Your task to perform on an android device: check out phone information Image 0: 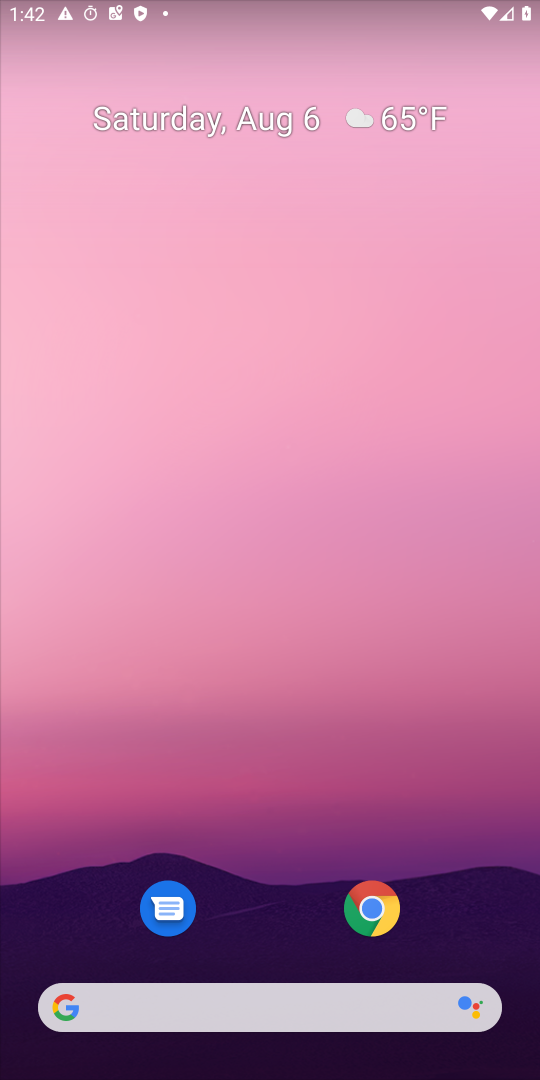
Step 0: drag from (295, 876) to (242, 130)
Your task to perform on an android device: check out phone information Image 1: 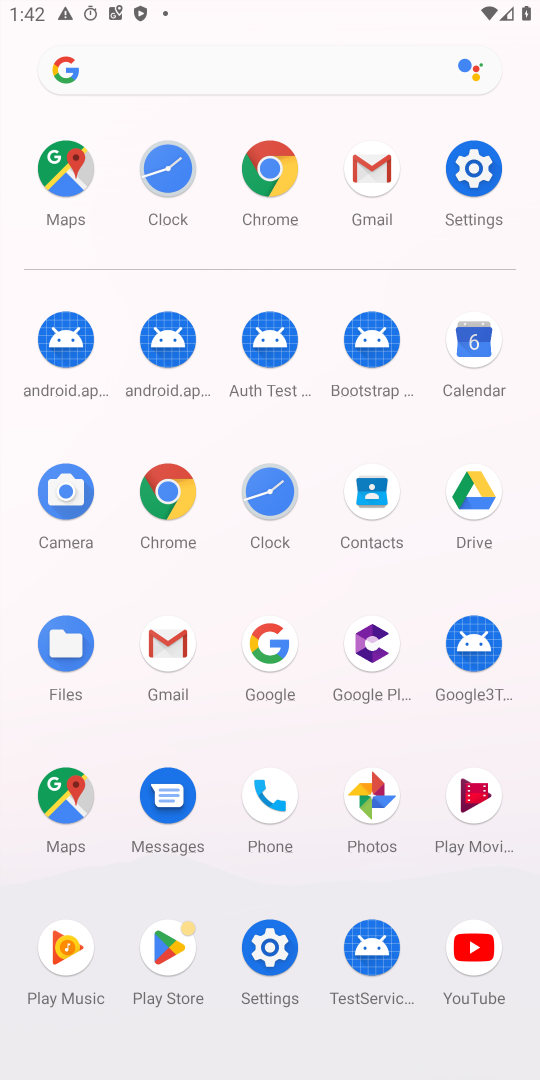
Step 1: click (261, 953)
Your task to perform on an android device: check out phone information Image 2: 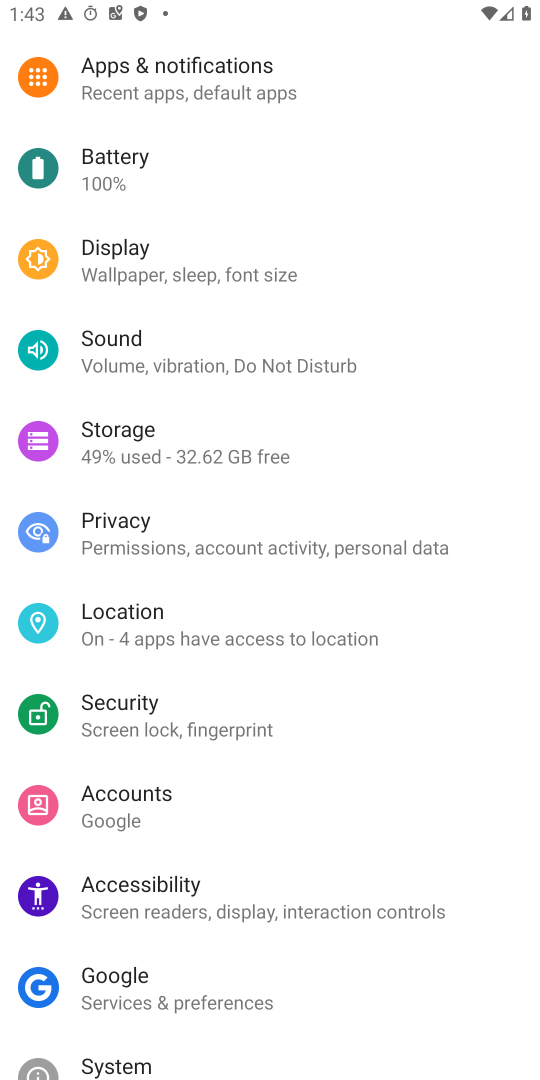
Step 2: drag from (246, 980) to (176, 295)
Your task to perform on an android device: check out phone information Image 3: 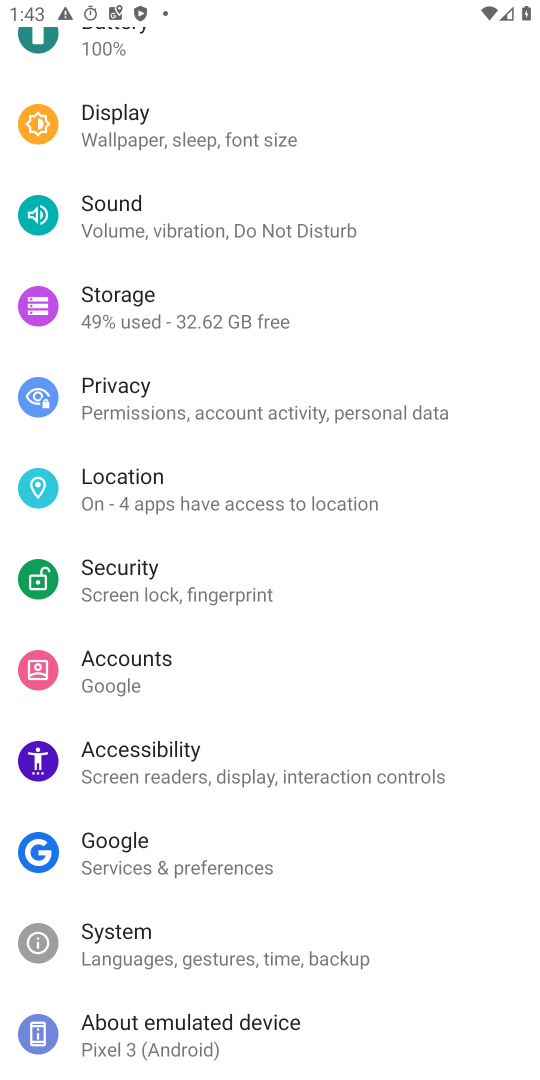
Step 3: click (194, 1049)
Your task to perform on an android device: check out phone information Image 4: 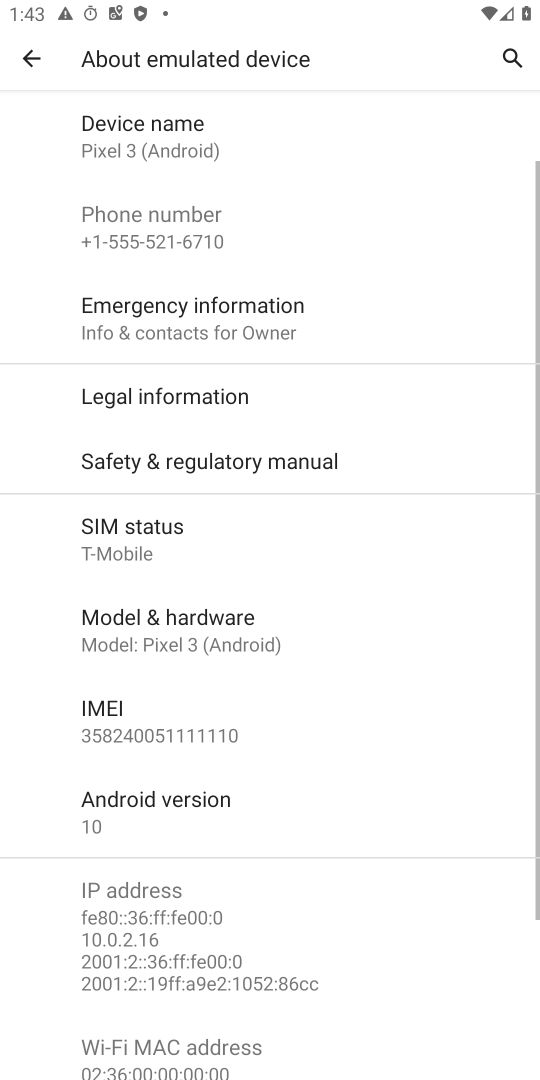
Step 4: task complete